Your task to perform on an android device: toggle show notifications on the lock screen Image 0: 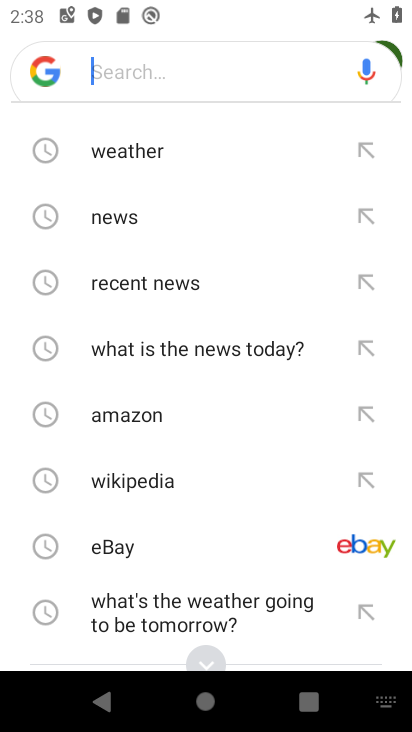
Step 0: press home button
Your task to perform on an android device: toggle show notifications on the lock screen Image 1: 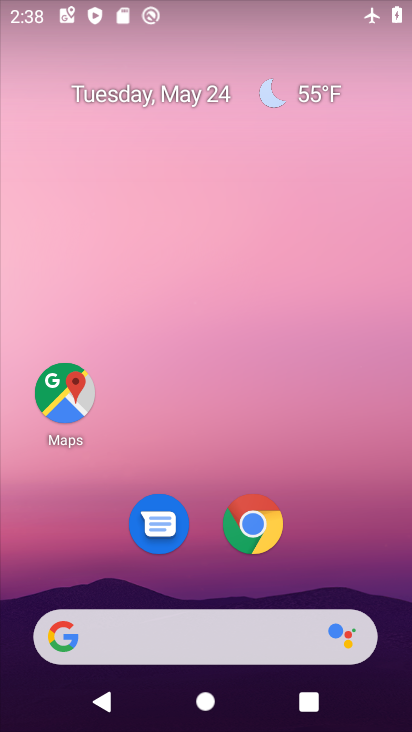
Step 1: drag from (225, 447) to (289, 34)
Your task to perform on an android device: toggle show notifications on the lock screen Image 2: 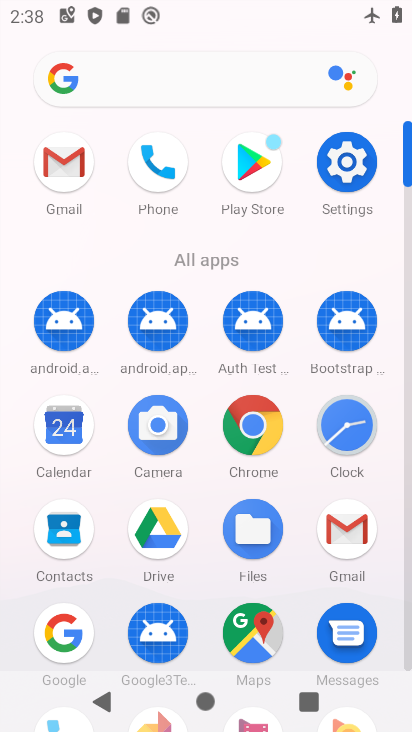
Step 2: click (348, 163)
Your task to perform on an android device: toggle show notifications on the lock screen Image 3: 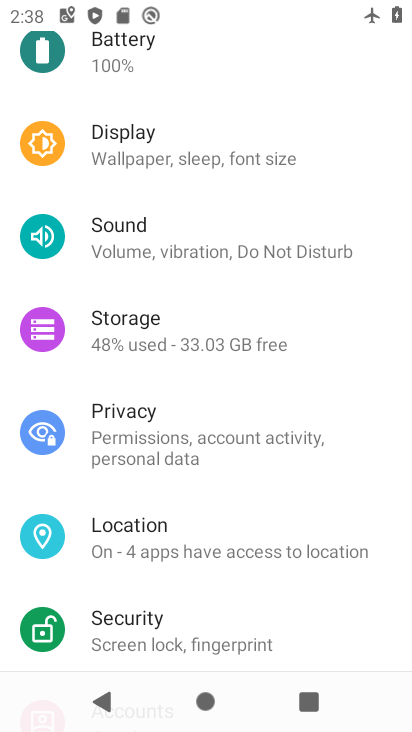
Step 3: drag from (219, 193) to (236, 555)
Your task to perform on an android device: toggle show notifications on the lock screen Image 4: 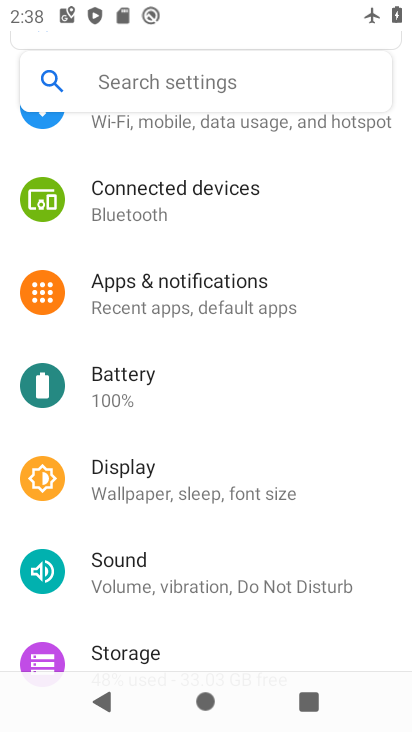
Step 4: click (241, 286)
Your task to perform on an android device: toggle show notifications on the lock screen Image 5: 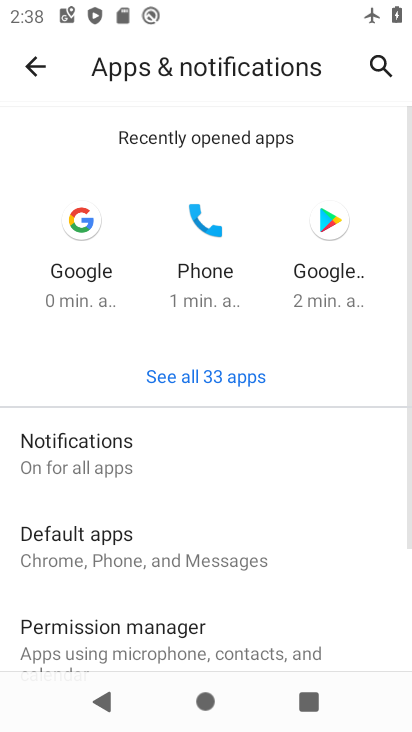
Step 5: click (191, 468)
Your task to perform on an android device: toggle show notifications on the lock screen Image 6: 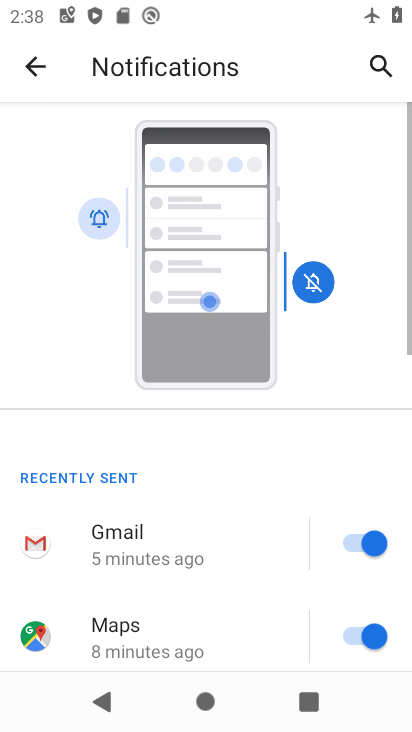
Step 6: drag from (219, 543) to (209, 159)
Your task to perform on an android device: toggle show notifications on the lock screen Image 7: 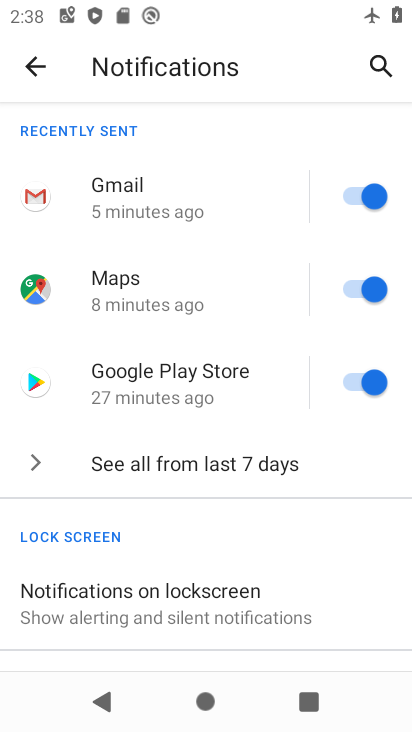
Step 7: click (231, 600)
Your task to perform on an android device: toggle show notifications on the lock screen Image 8: 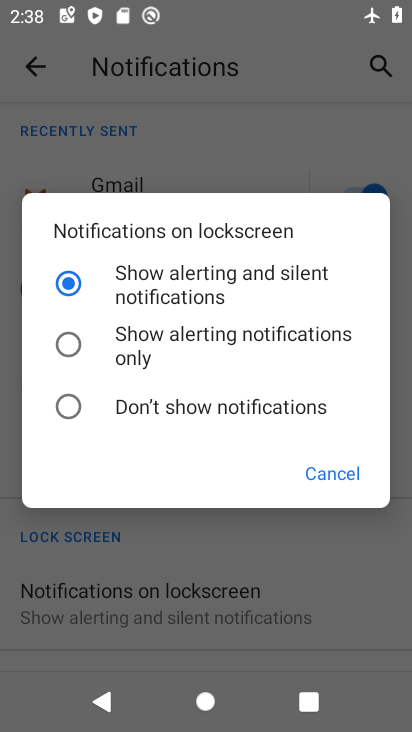
Step 8: click (64, 396)
Your task to perform on an android device: toggle show notifications on the lock screen Image 9: 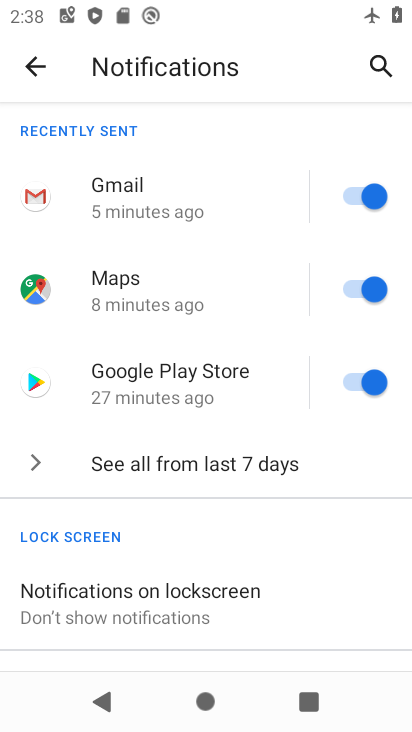
Step 9: task complete